Your task to perform on an android device: Go to Android settings Image 0: 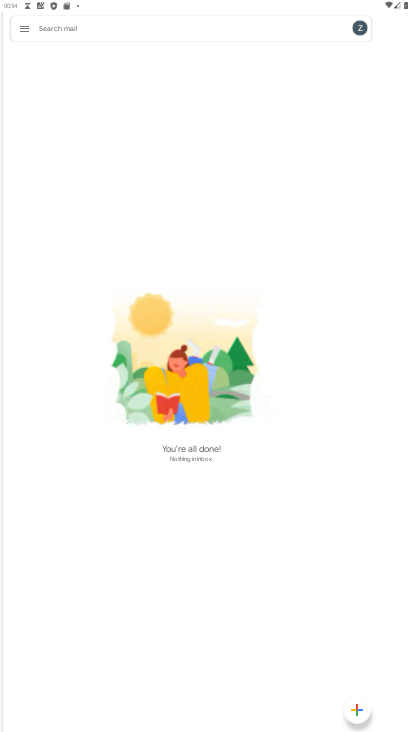
Step 0: press home button
Your task to perform on an android device: Go to Android settings Image 1: 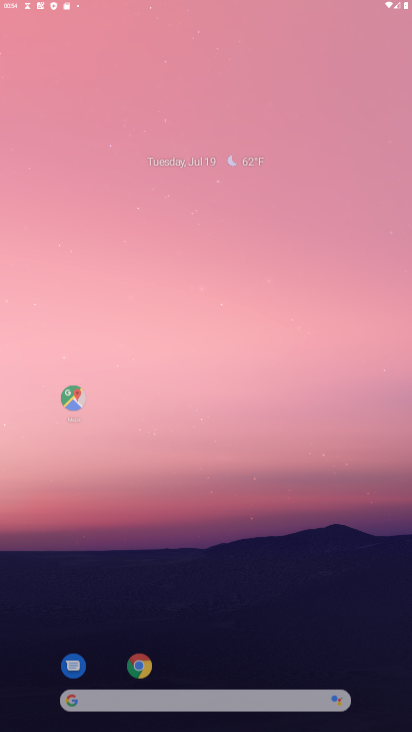
Step 1: drag from (239, 576) to (241, 167)
Your task to perform on an android device: Go to Android settings Image 2: 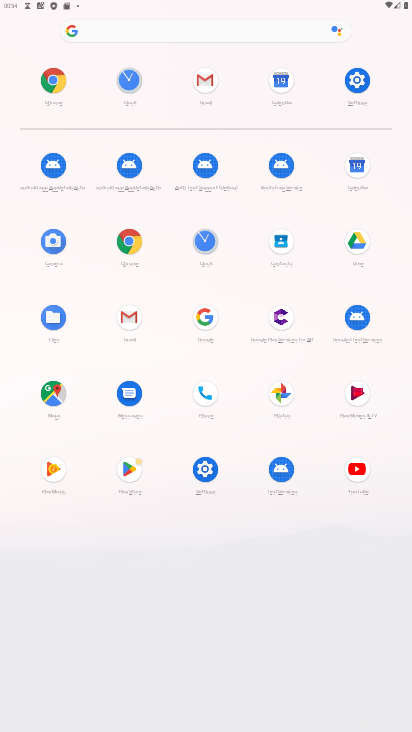
Step 2: click (359, 83)
Your task to perform on an android device: Go to Android settings Image 3: 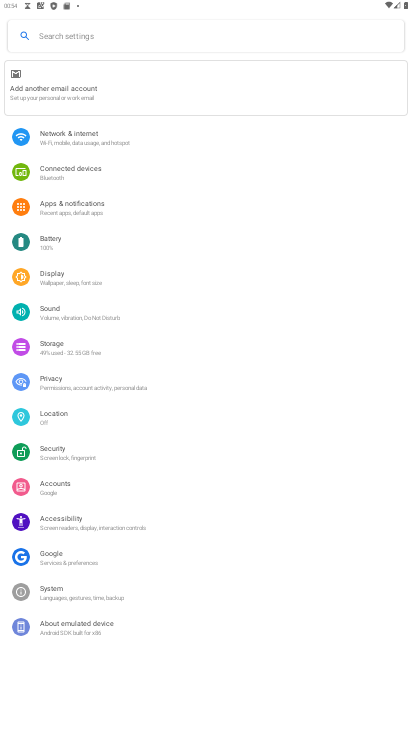
Step 3: task complete